Your task to perform on an android device: Clear the shopping cart on costco. Search for "razer deathadder" on costco, select the first entry, add it to the cart, then select checkout. Image 0: 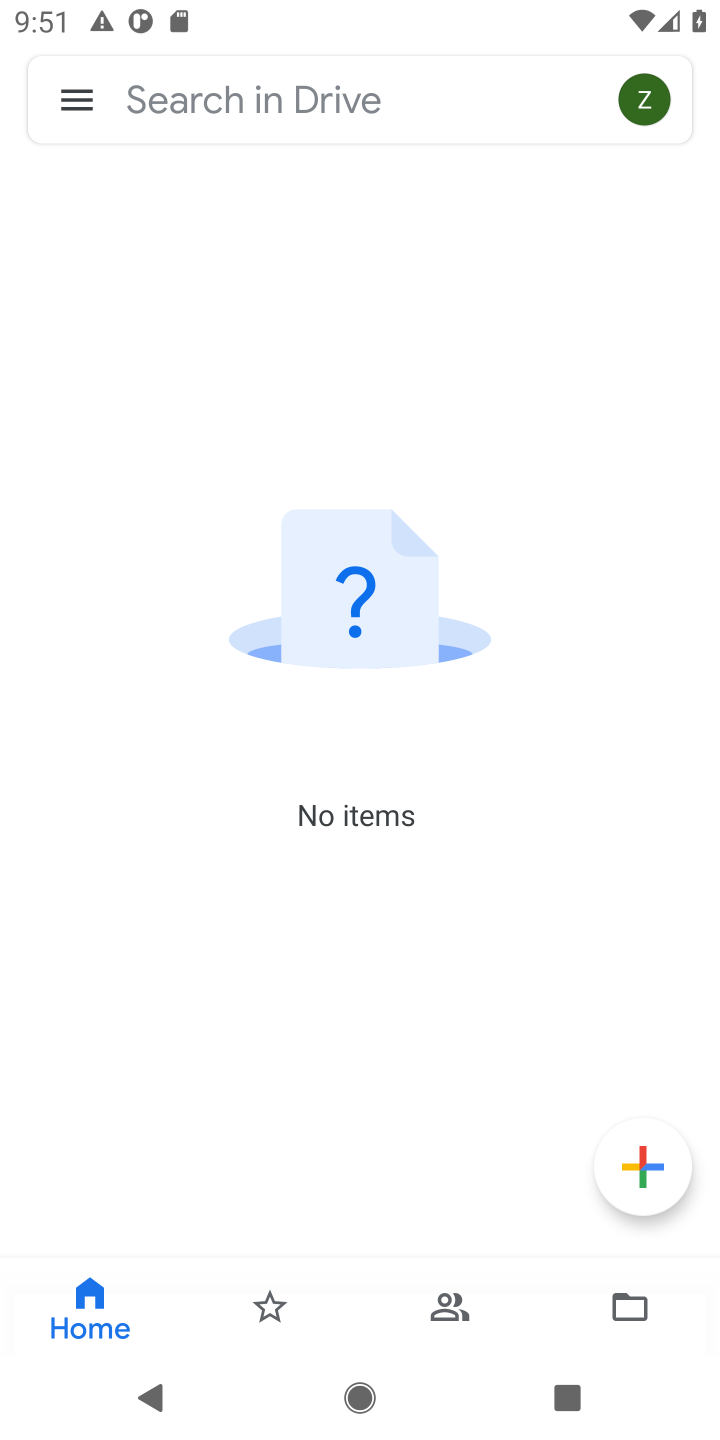
Step 0: press home button
Your task to perform on an android device: Clear the shopping cart on costco. Search for "razer deathadder" on costco, select the first entry, add it to the cart, then select checkout. Image 1: 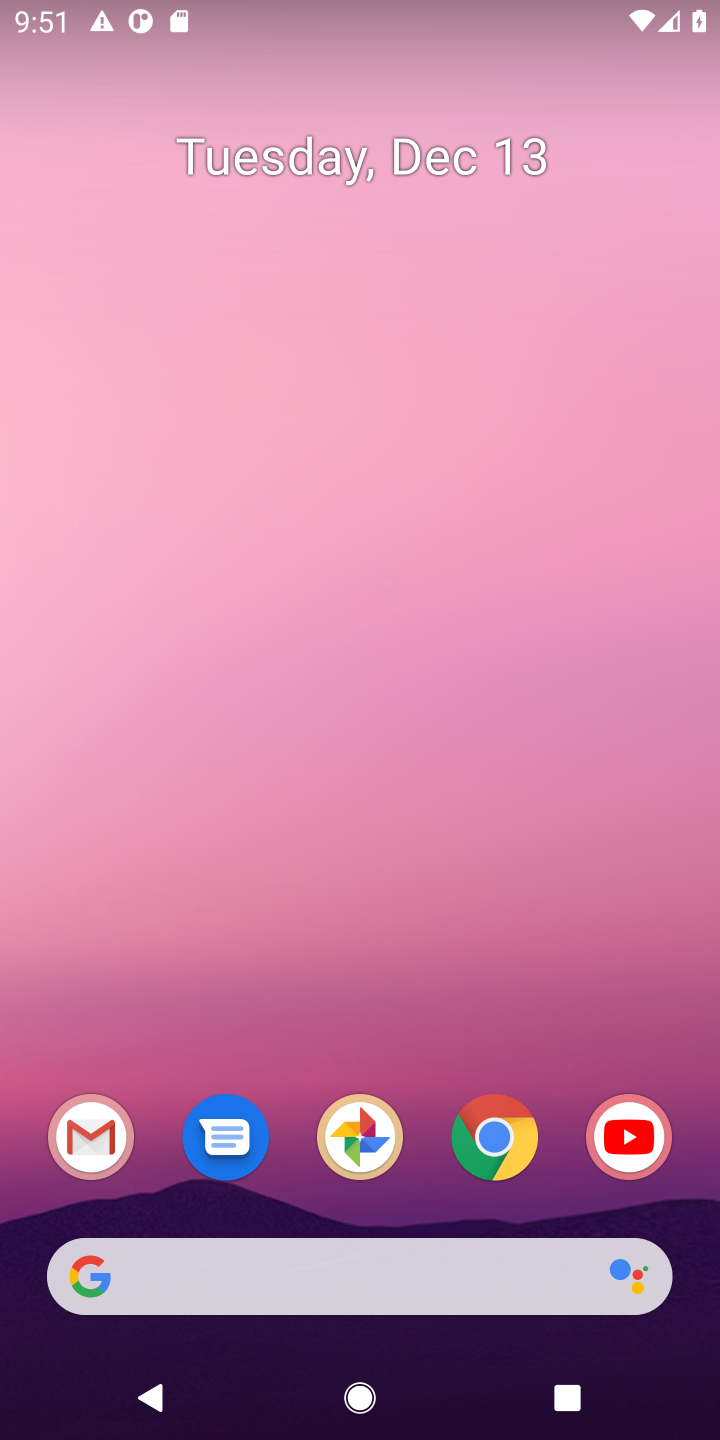
Step 1: click (519, 1128)
Your task to perform on an android device: Clear the shopping cart on costco. Search for "razer deathadder" on costco, select the first entry, add it to the cart, then select checkout. Image 2: 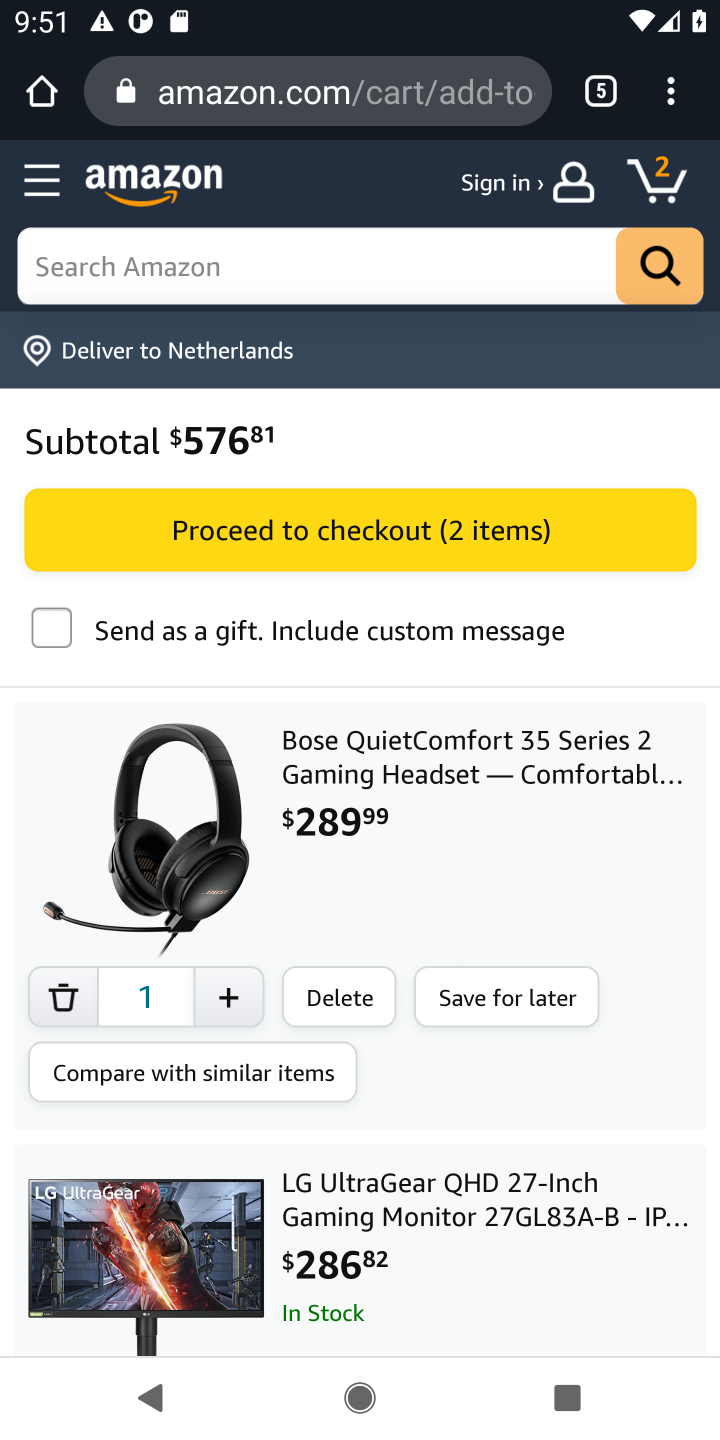
Step 2: click (594, 85)
Your task to perform on an android device: Clear the shopping cart on costco. Search for "razer deathadder" on costco, select the first entry, add it to the cart, then select checkout. Image 3: 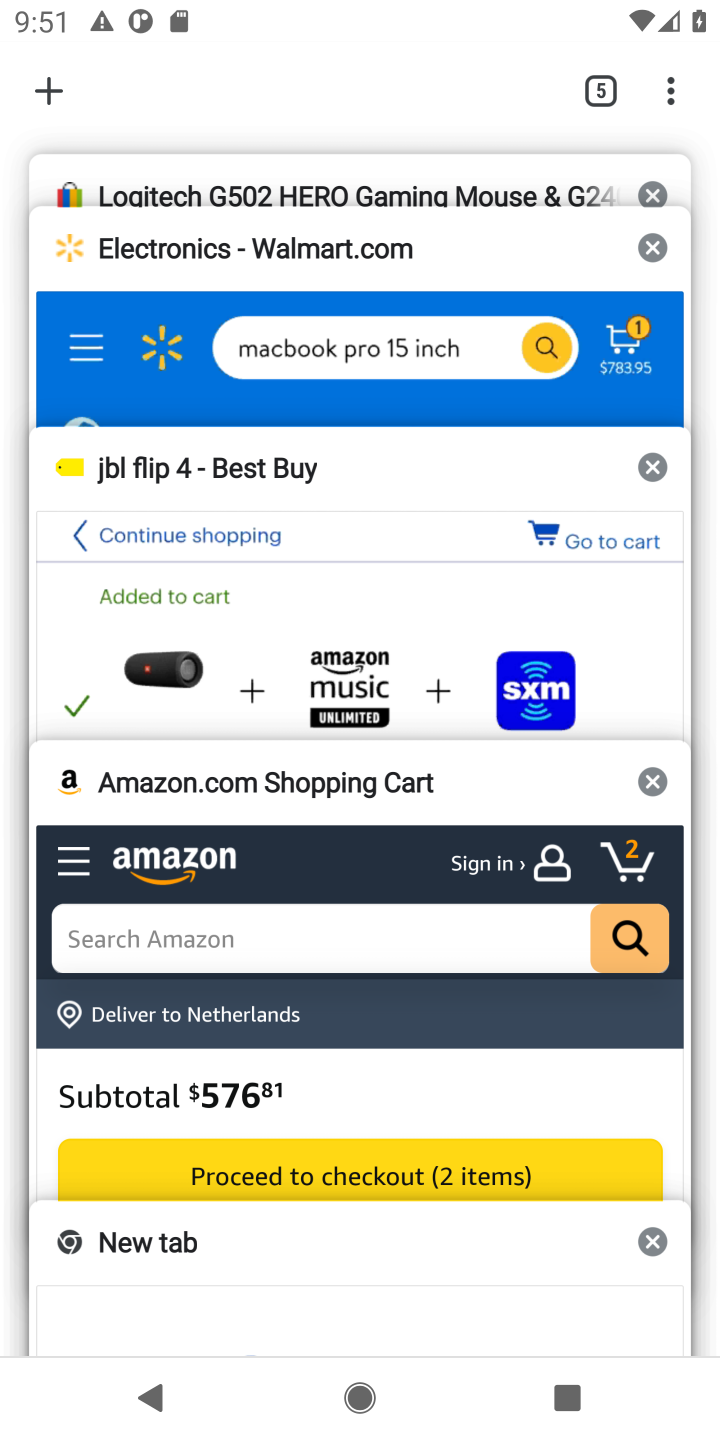
Step 3: click (47, 91)
Your task to perform on an android device: Clear the shopping cart on costco. Search for "razer deathadder" on costco, select the first entry, add it to the cart, then select checkout. Image 4: 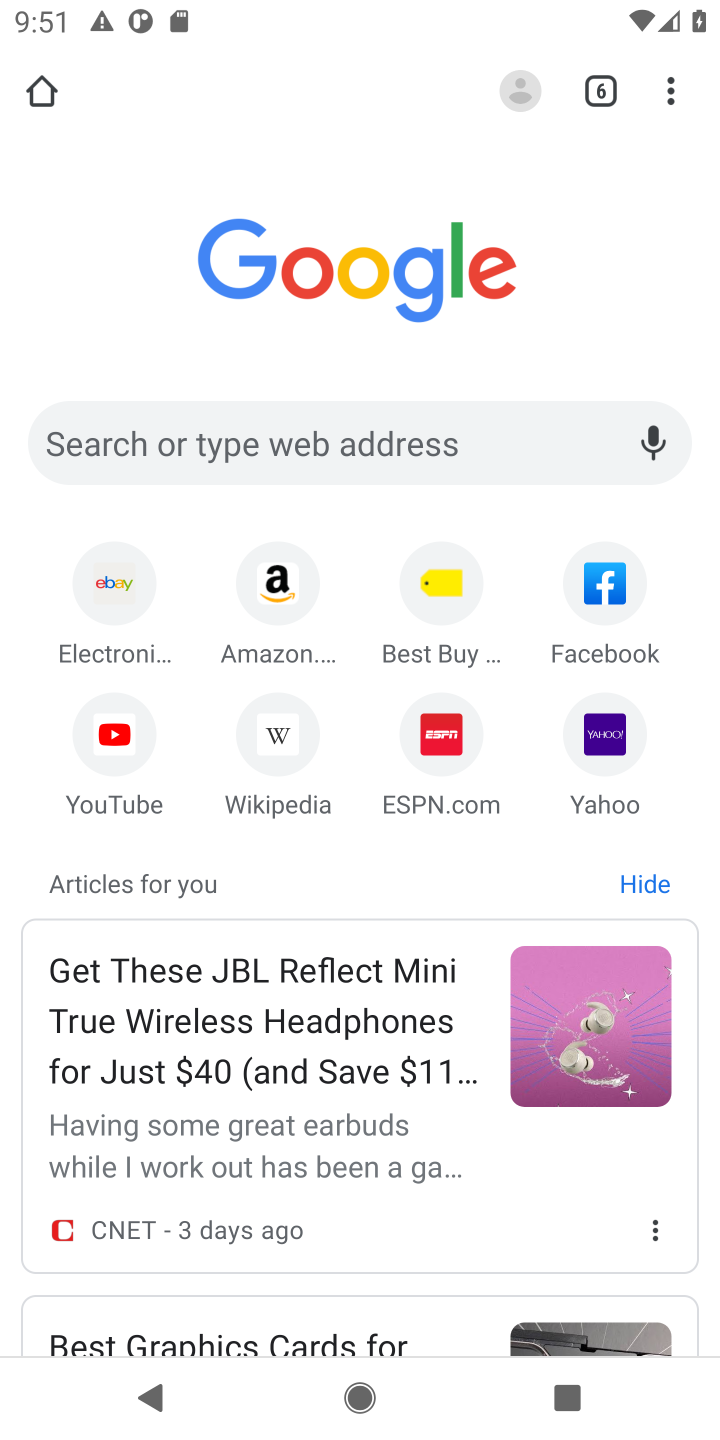
Step 4: click (200, 431)
Your task to perform on an android device: Clear the shopping cart on costco. Search for "razer deathadder" on costco, select the first entry, add it to the cart, then select checkout. Image 5: 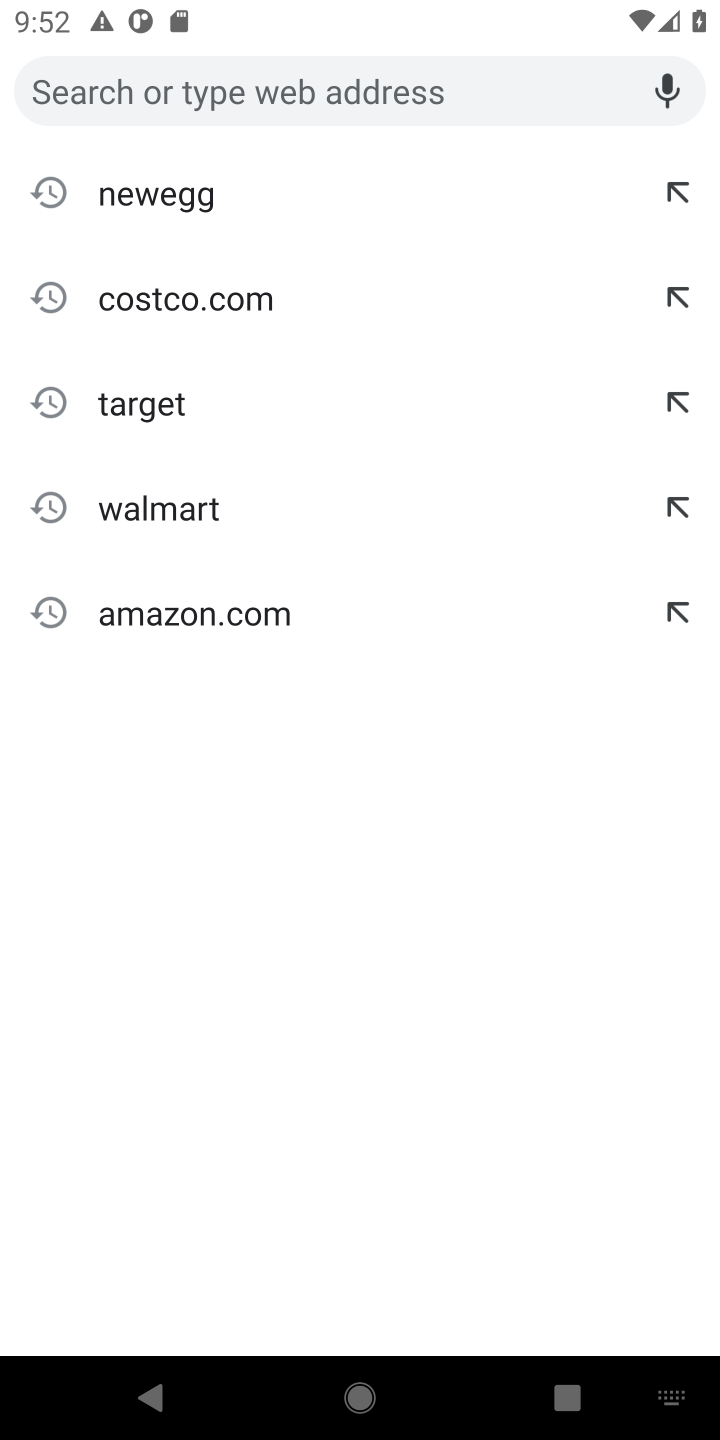
Step 5: type "costco"
Your task to perform on an android device: Clear the shopping cart on costco. Search for "razer deathadder" on costco, select the first entry, add it to the cart, then select checkout. Image 6: 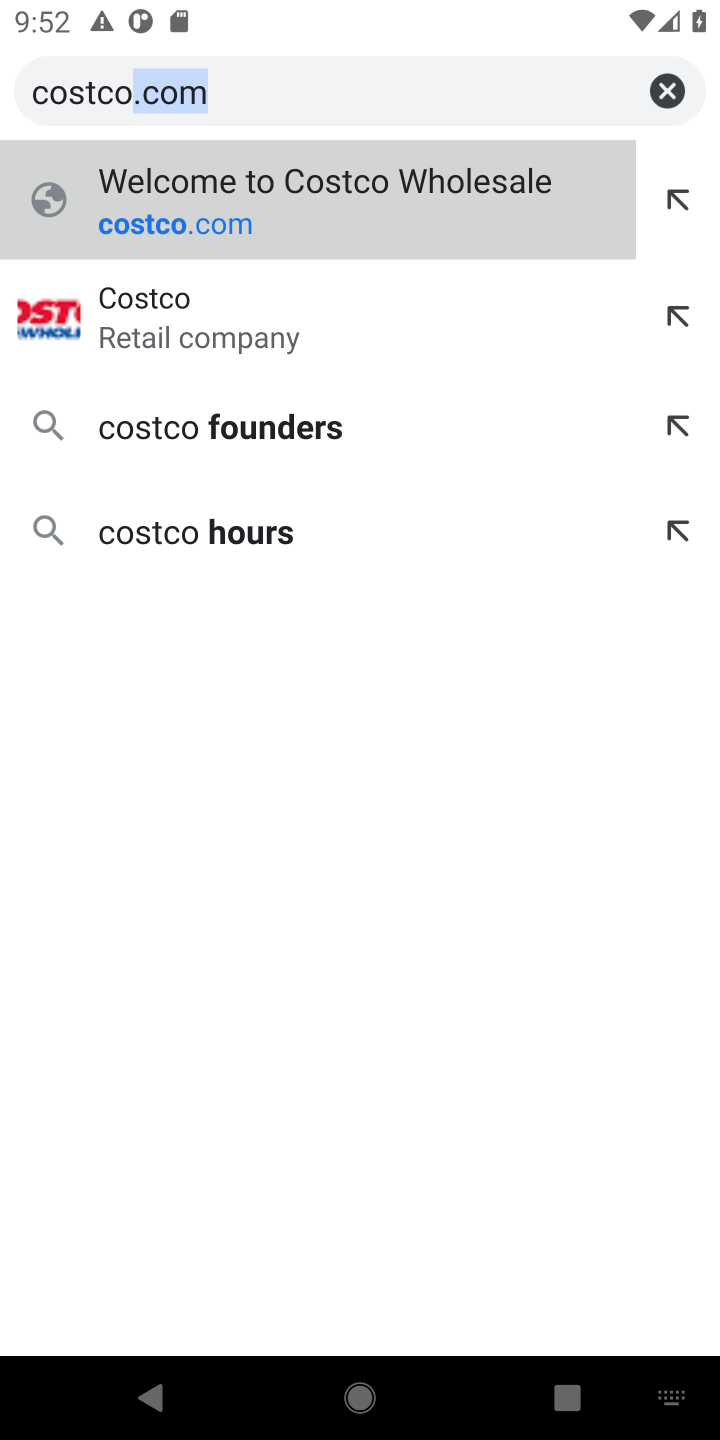
Step 6: click (514, 193)
Your task to perform on an android device: Clear the shopping cart on costco. Search for "razer deathadder" on costco, select the first entry, add it to the cart, then select checkout. Image 7: 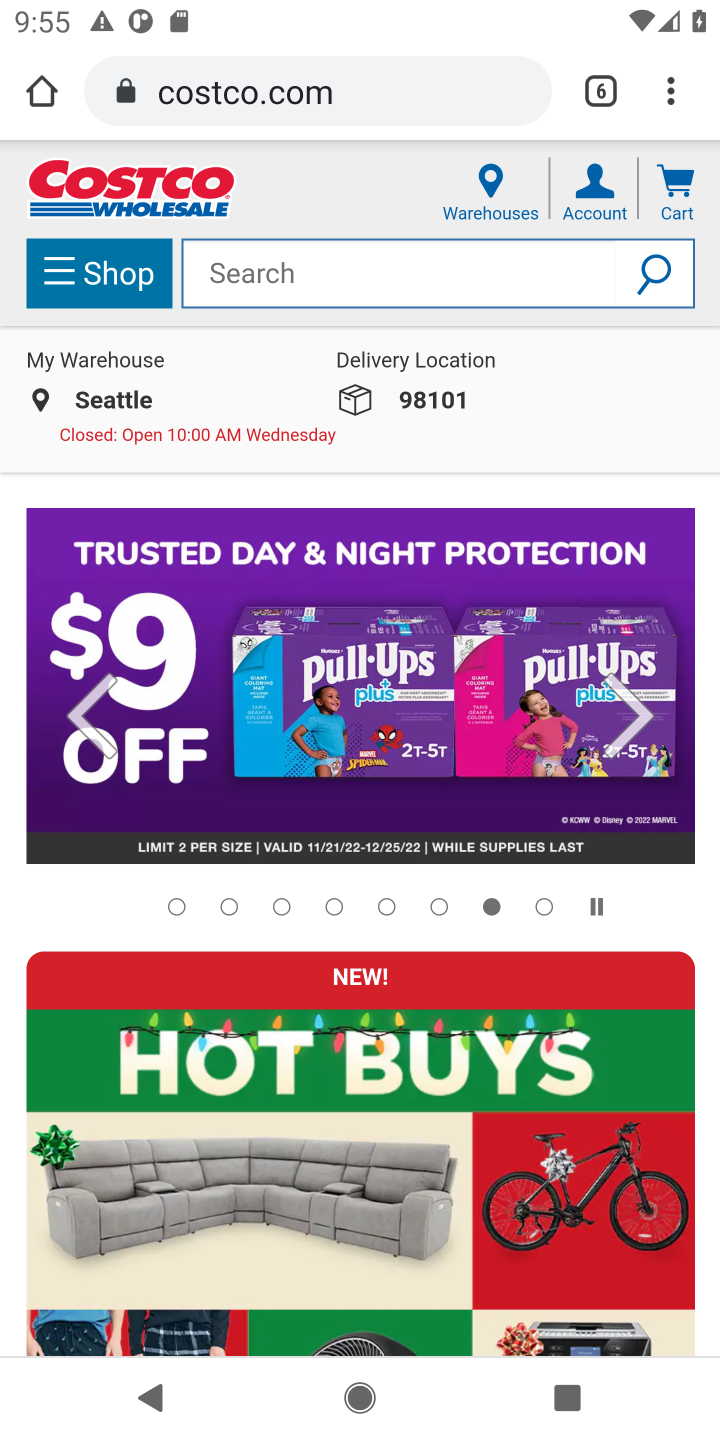
Step 7: click (246, 272)
Your task to perform on an android device: Clear the shopping cart on costco. Search for "razer deathadder" on costco, select the first entry, add it to the cart, then select checkout. Image 8: 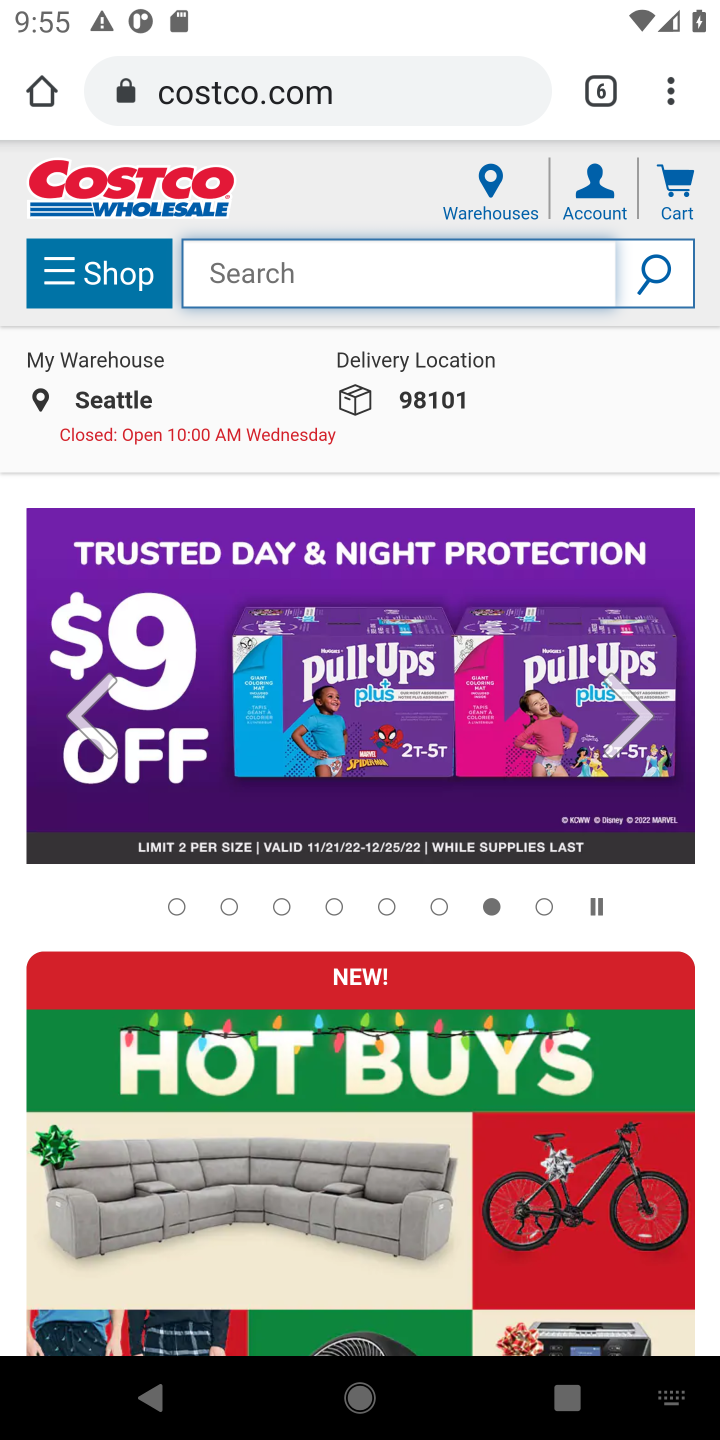
Step 8: type "razer deathadder"
Your task to perform on an android device: Clear the shopping cart on costco. Search for "razer deathadder" on costco, select the first entry, add it to the cart, then select checkout. Image 9: 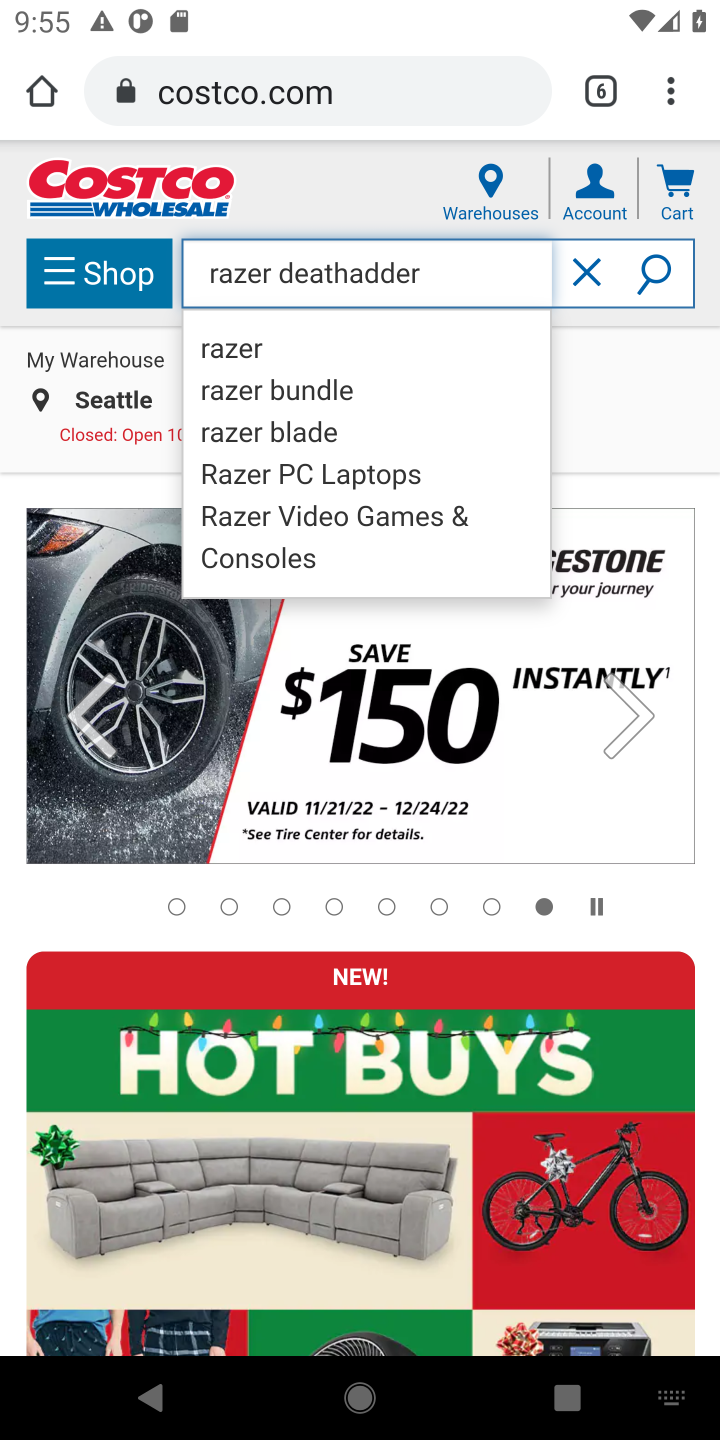
Step 9: click (640, 269)
Your task to perform on an android device: Clear the shopping cart on costco. Search for "razer deathadder" on costco, select the first entry, add it to the cart, then select checkout. Image 10: 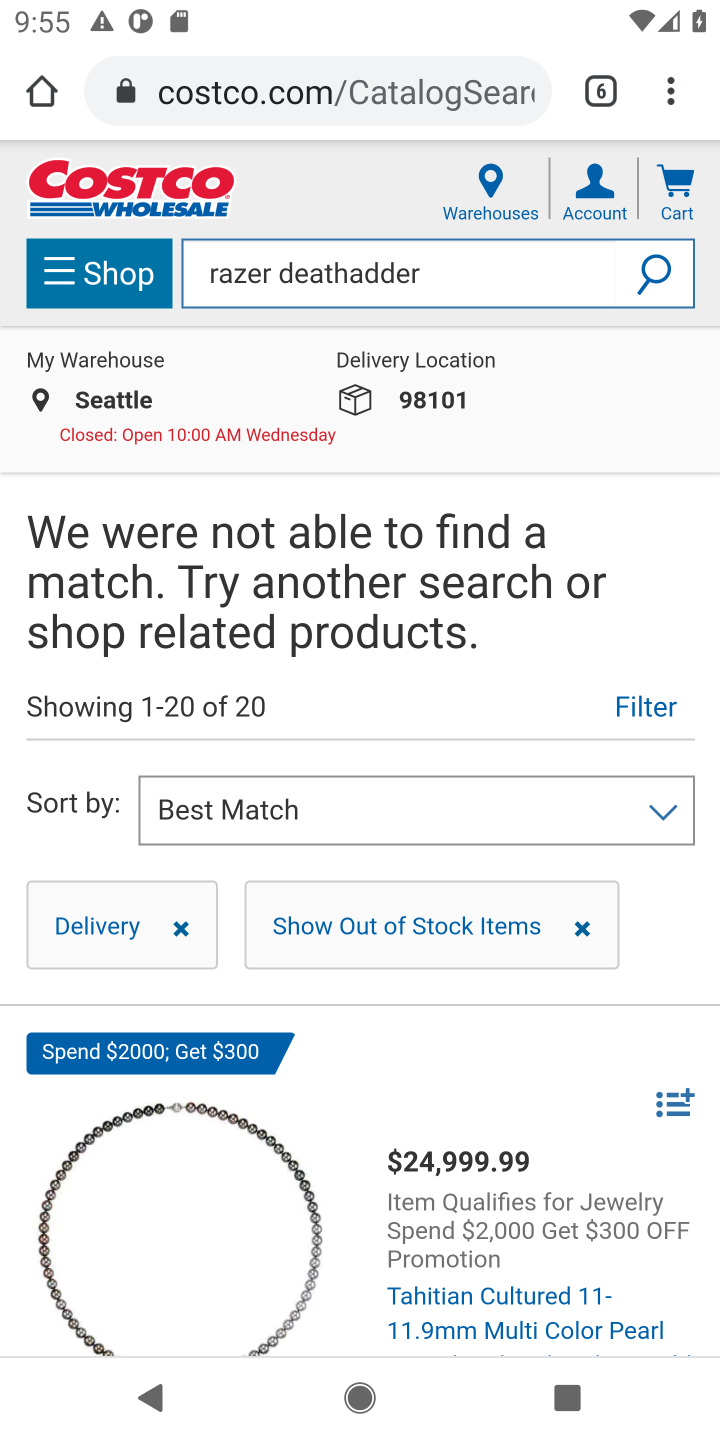
Step 10: task complete